Your task to perform on an android device: Go to Wikipedia Image 0: 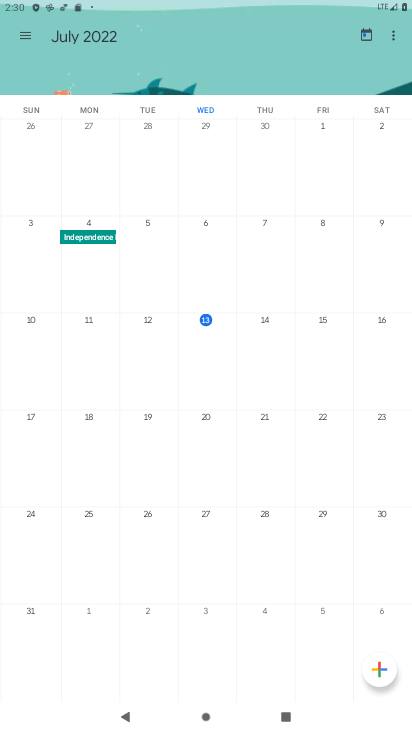
Step 0: press home button
Your task to perform on an android device: Go to Wikipedia Image 1: 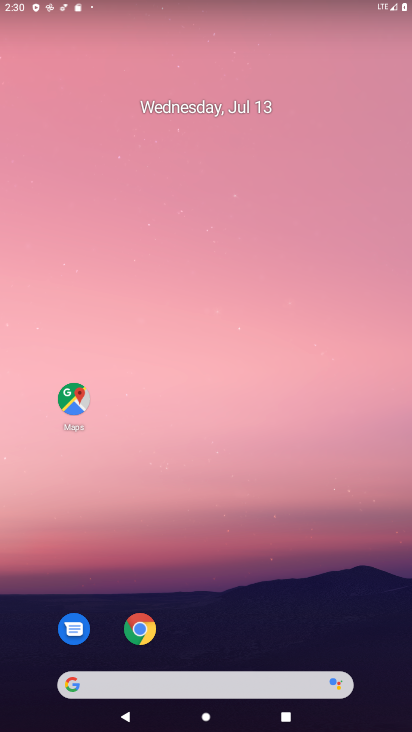
Step 1: drag from (351, 651) to (322, 100)
Your task to perform on an android device: Go to Wikipedia Image 2: 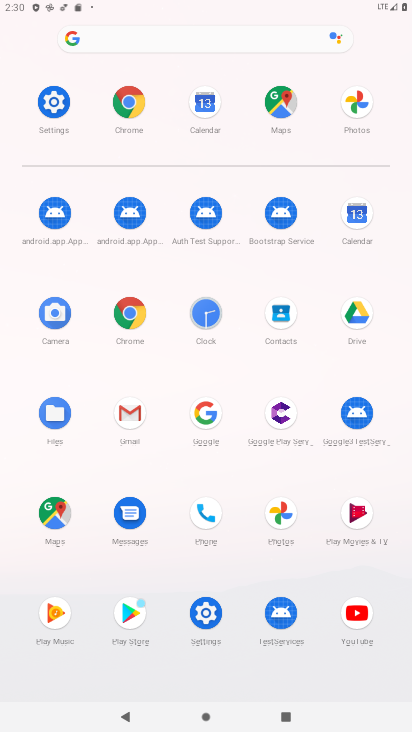
Step 2: click (166, 49)
Your task to perform on an android device: Go to Wikipedia Image 3: 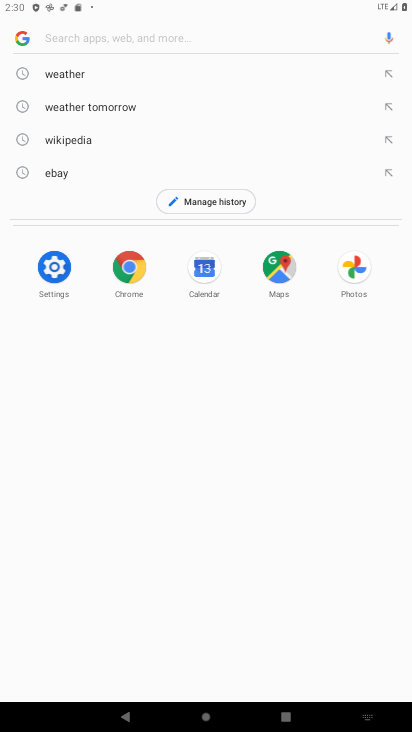
Step 3: click (208, 148)
Your task to perform on an android device: Go to Wikipedia Image 4: 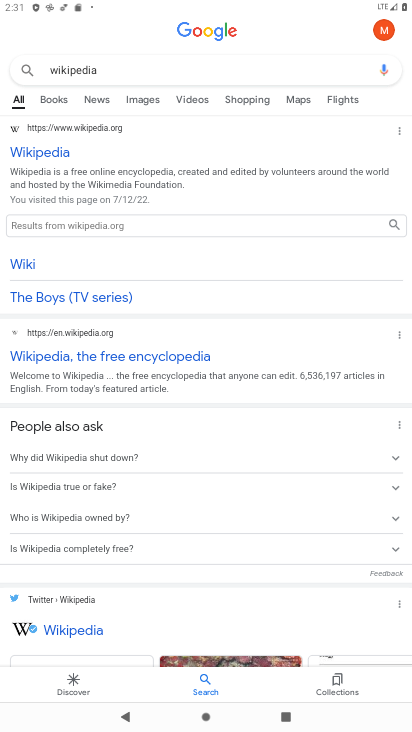
Step 4: click (70, 159)
Your task to perform on an android device: Go to Wikipedia Image 5: 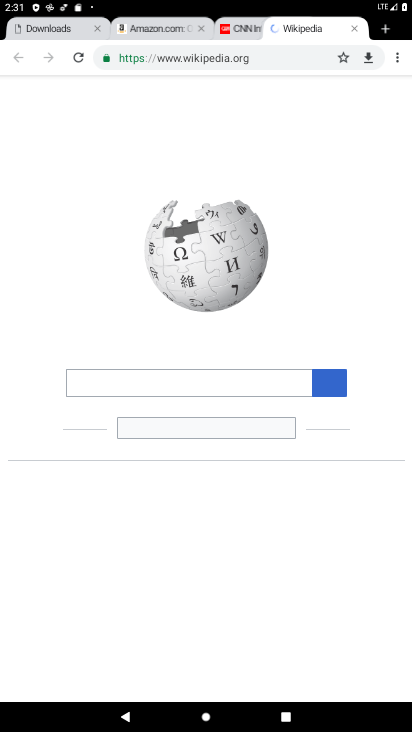
Step 5: task complete